Your task to perform on an android device: What's the weather? Image 0: 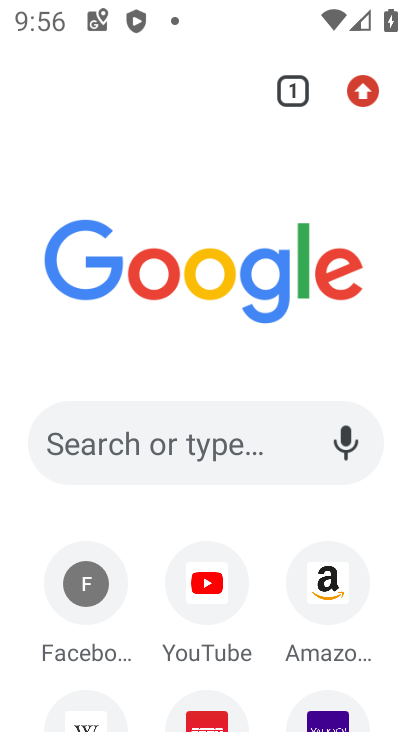
Step 0: press home button
Your task to perform on an android device: What's the weather? Image 1: 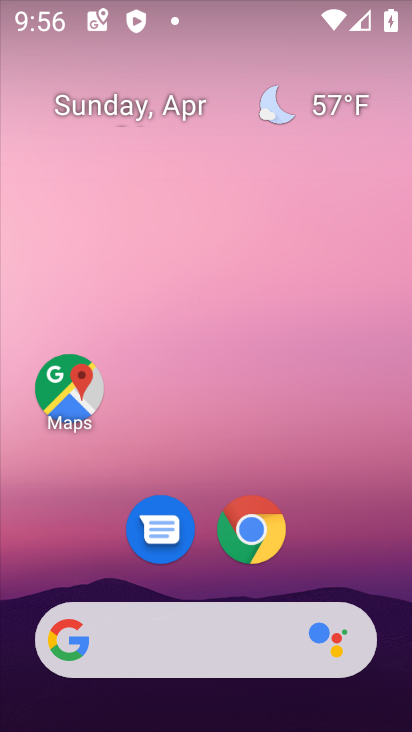
Step 1: click (298, 107)
Your task to perform on an android device: What's the weather? Image 2: 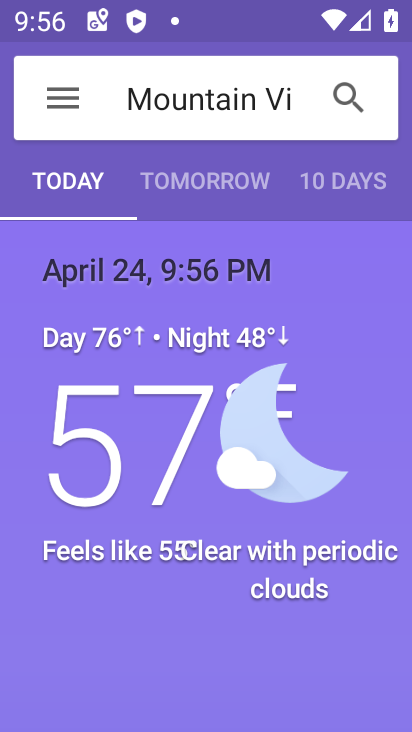
Step 2: task complete